Your task to perform on an android device: turn on data saver in the chrome app Image 0: 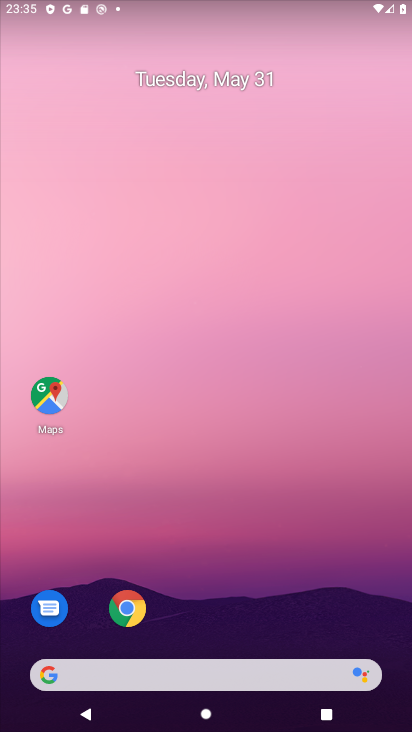
Step 0: click (356, 8)
Your task to perform on an android device: turn on data saver in the chrome app Image 1: 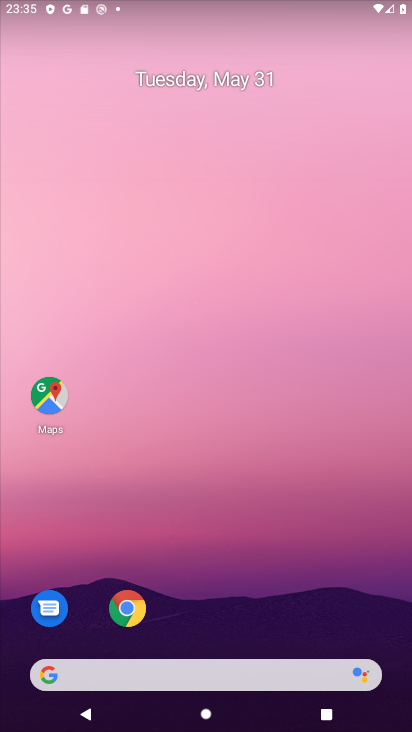
Step 1: click (129, 620)
Your task to perform on an android device: turn on data saver in the chrome app Image 2: 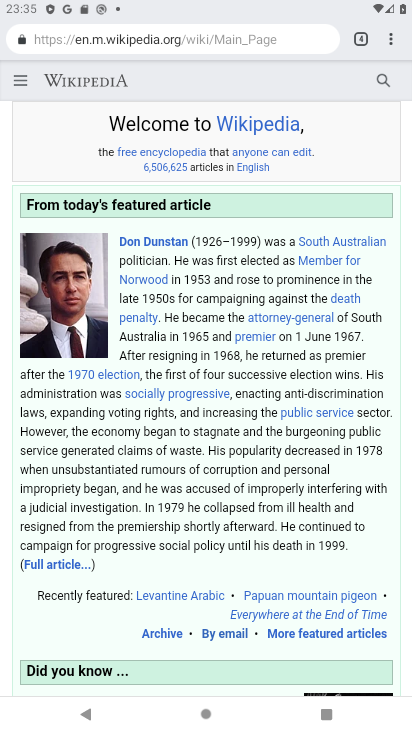
Step 2: drag from (394, 31) to (235, 463)
Your task to perform on an android device: turn on data saver in the chrome app Image 3: 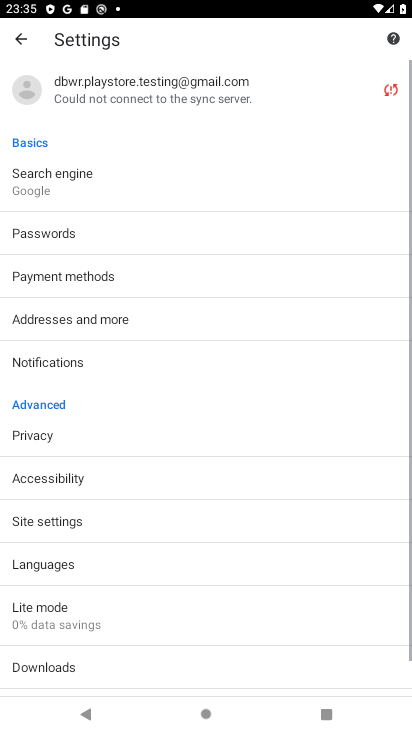
Step 3: click (29, 611)
Your task to perform on an android device: turn on data saver in the chrome app Image 4: 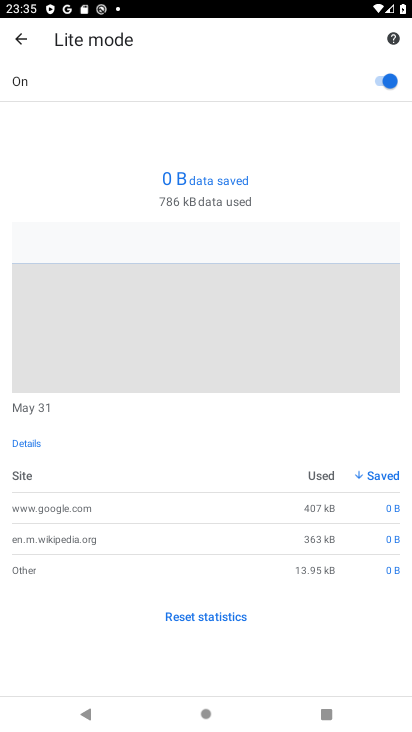
Step 4: task complete